Your task to perform on an android device: turn off priority inbox in the gmail app Image 0: 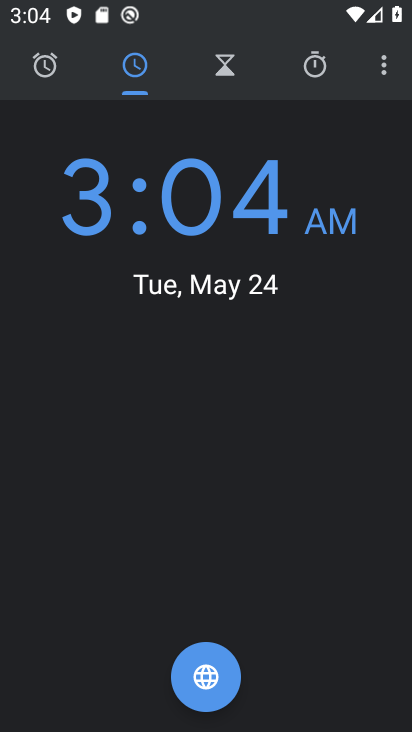
Step 0: press home button
Your task to perform on an android device: turn off priority inbox in the gmail app Image 1: 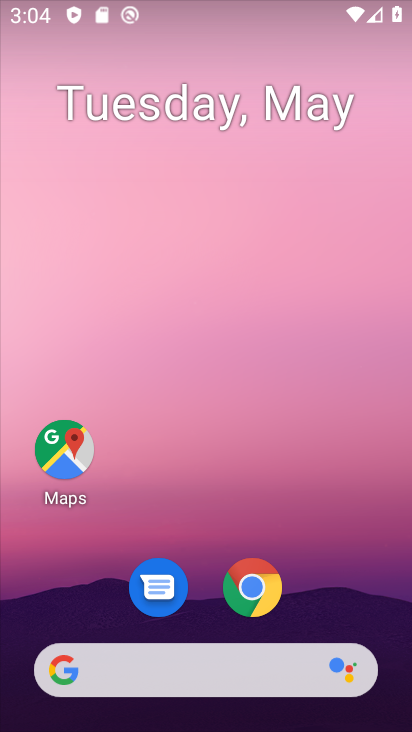
Step 1: drag from (318, 634) to (366, 156)
Your task to perform on an android device: turn off priority inbox in the gmail app Image 2: 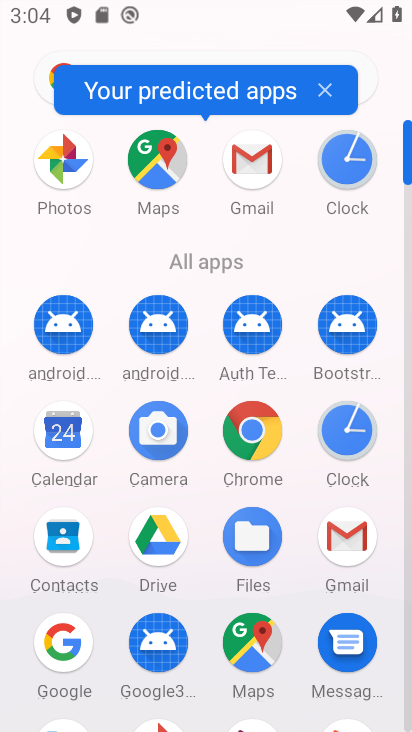
Step 2: click (342, 530)
Your task to perform on an android device: turn off priority inbox in the gmail app Image 3: 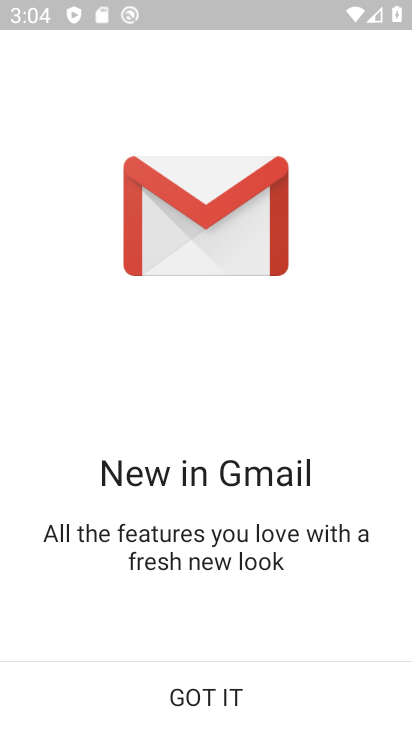
Step 3: click (217, 698)
Your task to perform on an android device: turn off priority inbox in the gmail app Image 4: 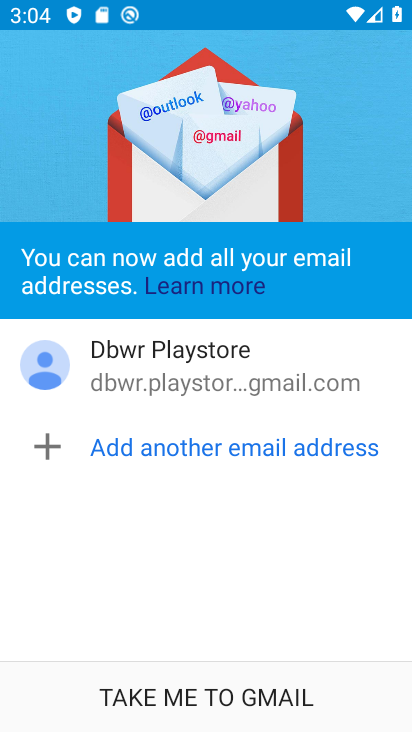
Step 4: click (217, 698)
Your task to perform on an android device: turn off priority inbox in the gmail app Image 5: 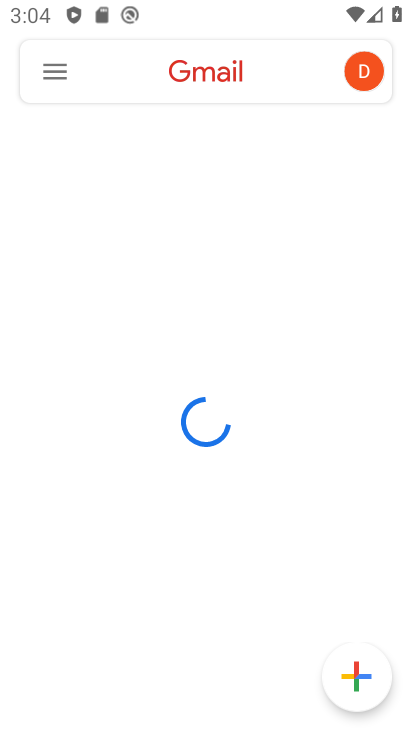
Step 5: click (41, 59)
Your task to perform on an android device: turn off priority inbox in the gmail app Image 6: 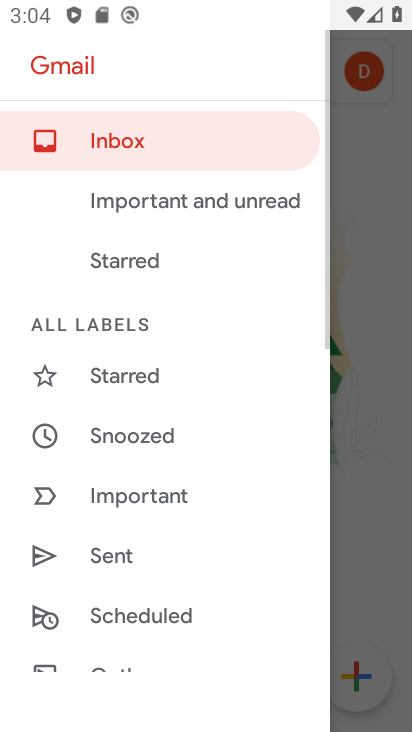
Step 6: drag from (154, 639) to (235, 200)
Your task to perform on an android device: turn off priority inbox in the gmail app Image 7: 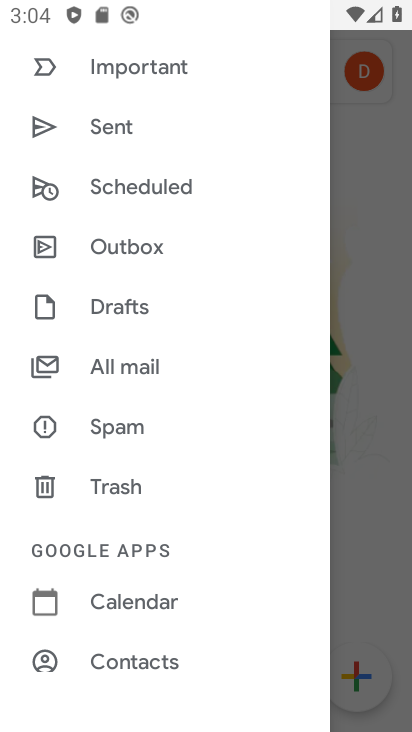
Step 7: drag from (173, 665) to (227, 372)
Your task to perform on an android device: turn off priority inbox in the gmail app Image 8: 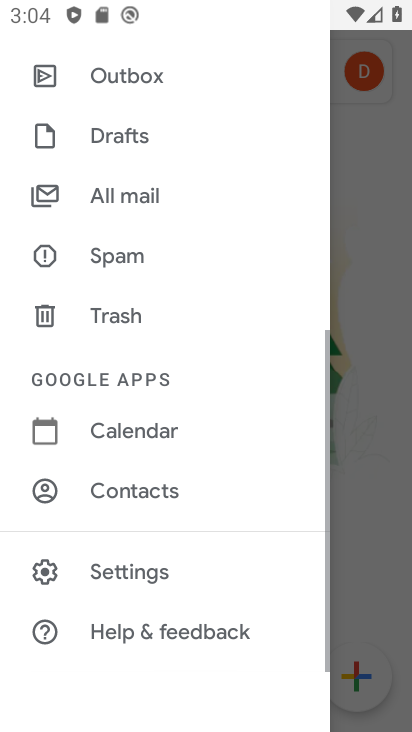
Step 8: click (135, 570)
Your task to perform on an android device: turn off priority inbox in the gmail app Image 9: 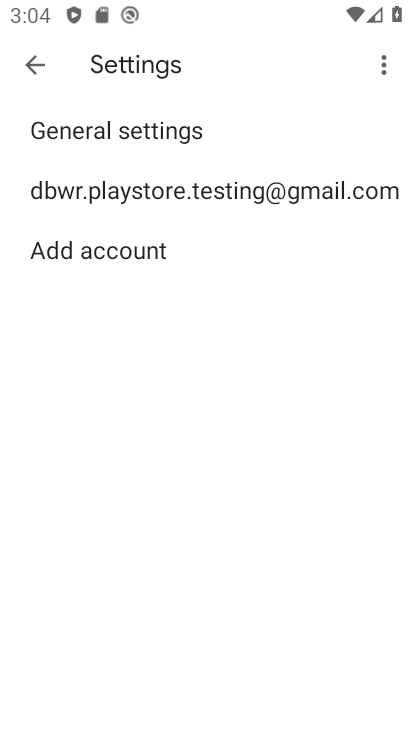
Step 9: drag from (192, 626) to (196, 460)
Your task to perform on an android device: turn off priority inbox in the gmail app Image 10: 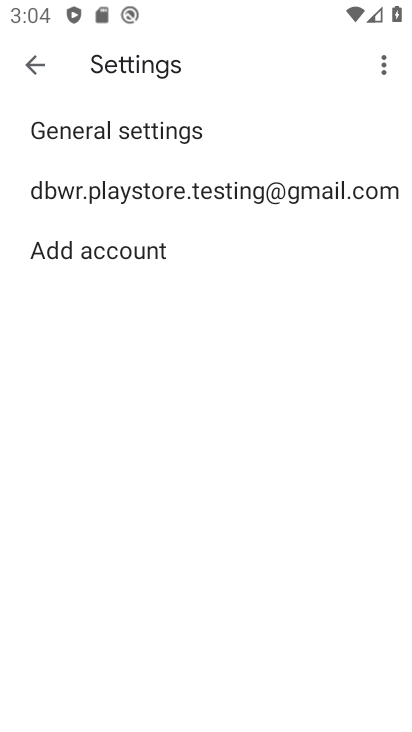
Step 10: click (142, 172)
Your task to perform on an android device: turn off priority inbox in the gmail app Image 11: 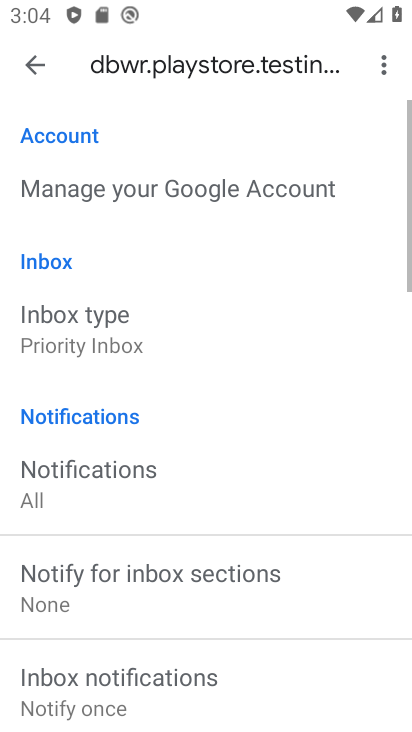
Step 11: drag from (202, 599) to (233, 385)
Your task to perform on an android device: turn off priority inbox in the gmail app Image 12: 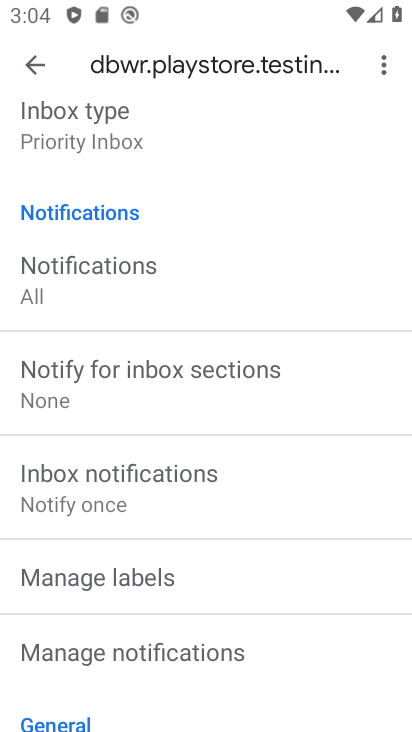
Step 12: click (117, 144)
Your task to perform on an android device: turn off priority inbox in the gmail app Image 13: 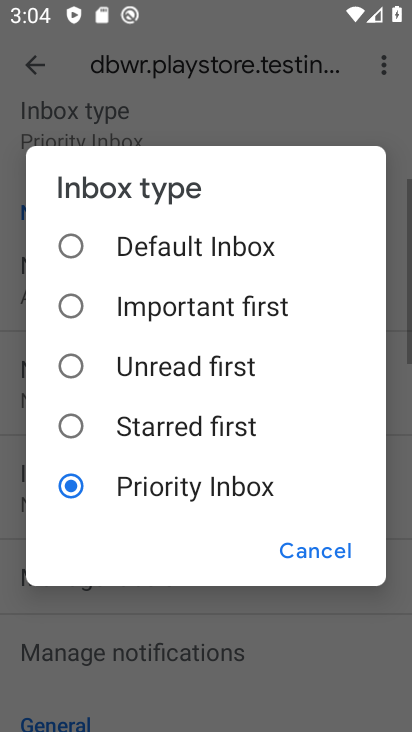
Step 13: click (168, 238)
Your task to perform on an android device: turn off priority inbox in the gmail app Image 14: 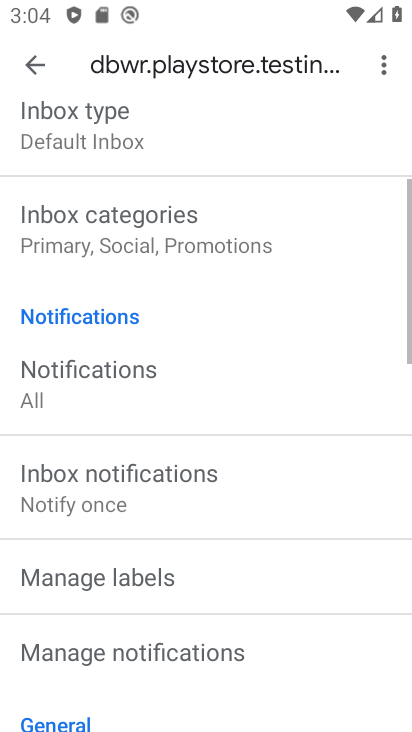
Step 14: task complete